Your task to perform on an android device: Is it going to rain tomorrow? Image 0: 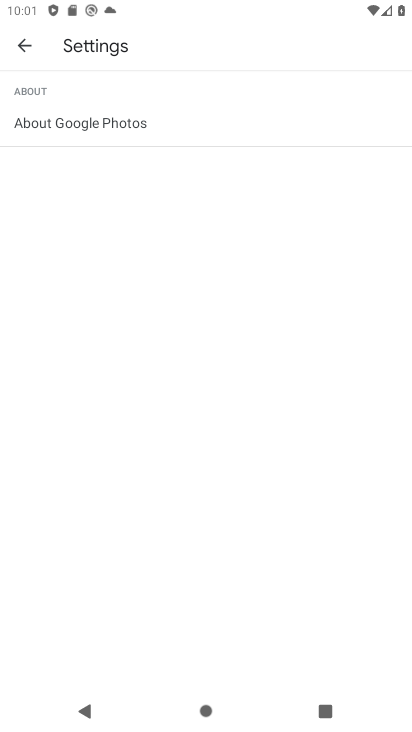
Step 0: press home button
Your task to perform on an android device: Is it going to rain tomorrow? Image 1: 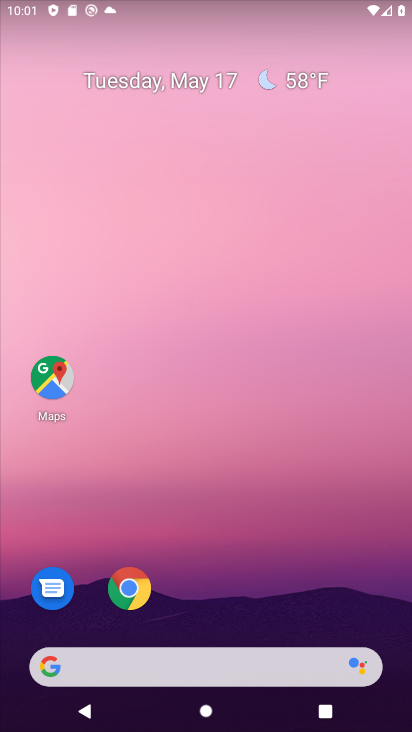
Step 1: click (125, 597)
Your task to perform on an android device: Is it going to rain tomorrow? Image 2: 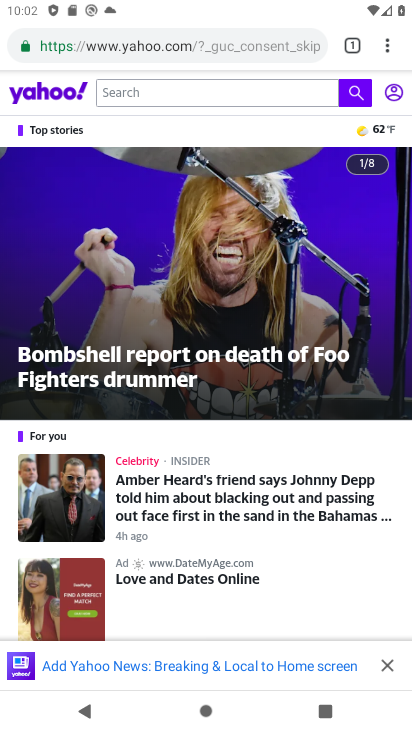
Step 2: click (205, 56)
Your task to perform on an android device: Is it going to rain tomorrow? Image 3: 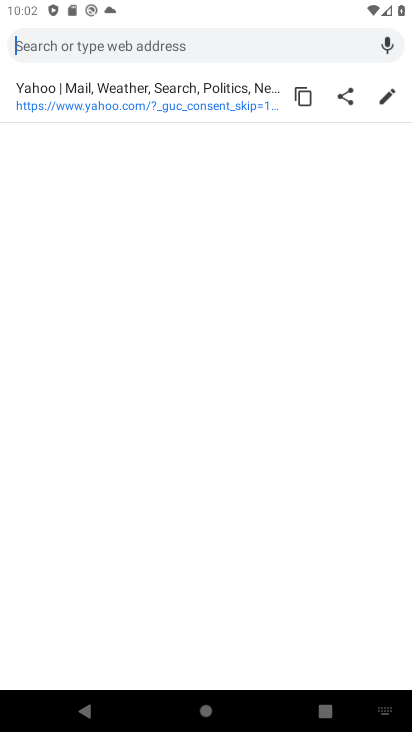
Step 3: type "Is it going to rain tomorrow?"
Your task to perform on an android device: Is it going to rain tomorrow? Image 4: 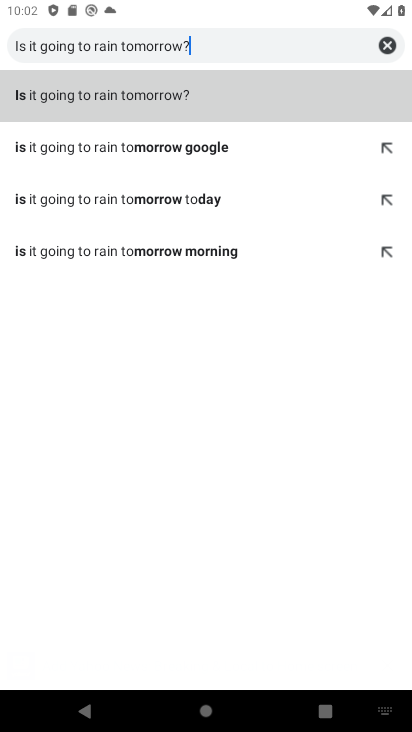
Step 4: click (121, 90)
Your task to perform on an android device: Is it going to rain tomorrow? Image 5: 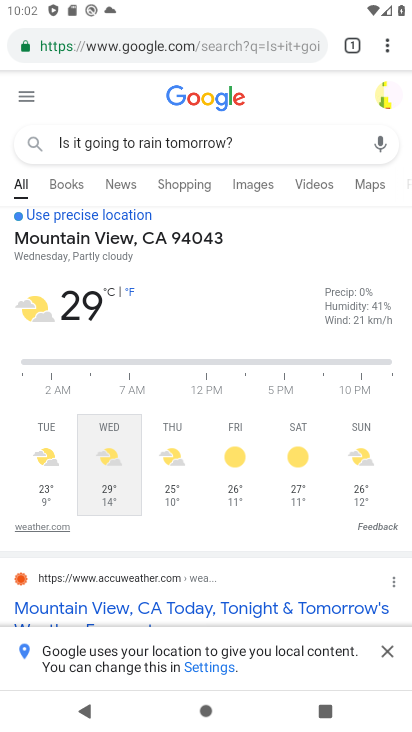
Step 5: task complete